Your task to perform on an android device: Open Chrome and go to the settings page Image 0: 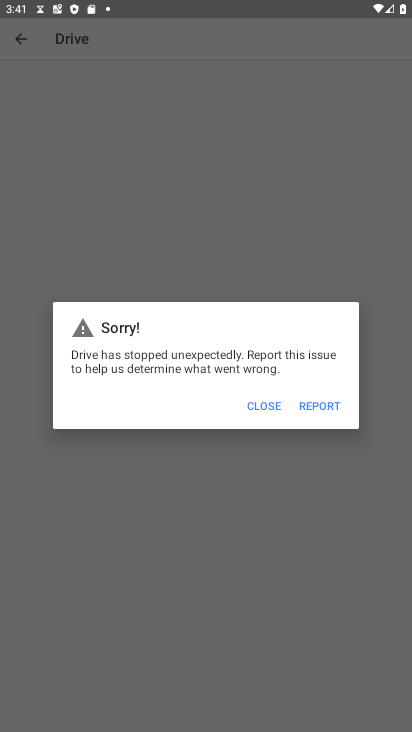
Step 0: drag from (233, 588) to (247, 313)
Your task to perform on an android device: Open Chrome and go to the settings page Image 1: 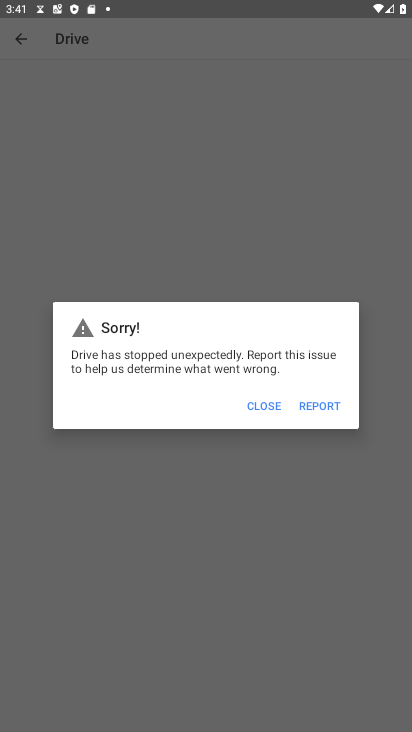
Step 1: press home button
Your task to perform on an android device: Open Chrome and go to the settings page Image 2: 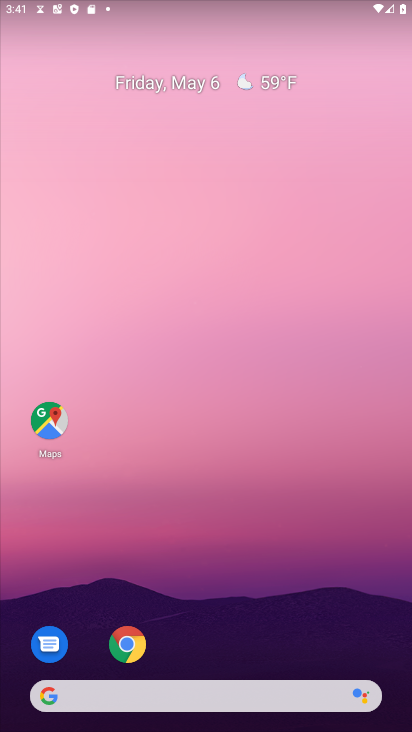
Step 2: click (128, 642)
Your task to perform on an android device: Open Chrome and go to the settings page Image 3: 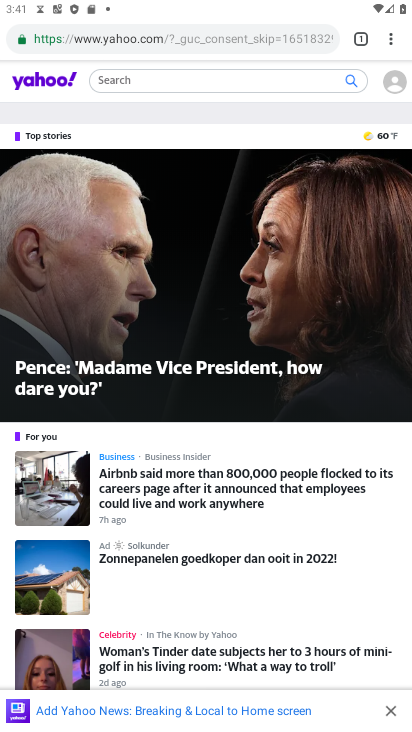
Step 3: click (392, 37)
Your task to perform on an android device: Open Chrome and go to the settings page Image 4: 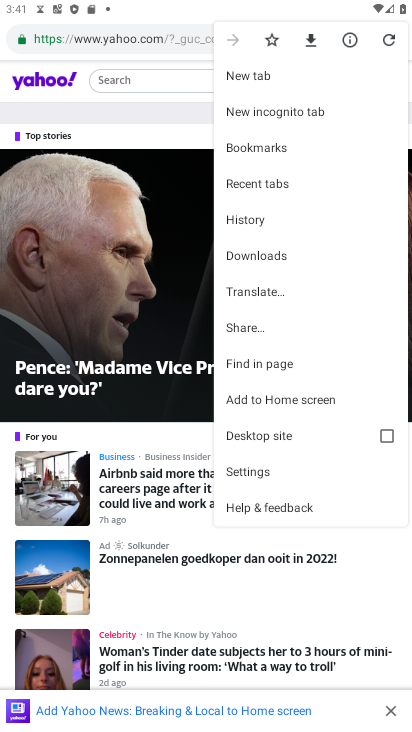
Step 4: click (257, 473)
Your task to perform on an android device: Open Chrome and go to the settings page Image 5: 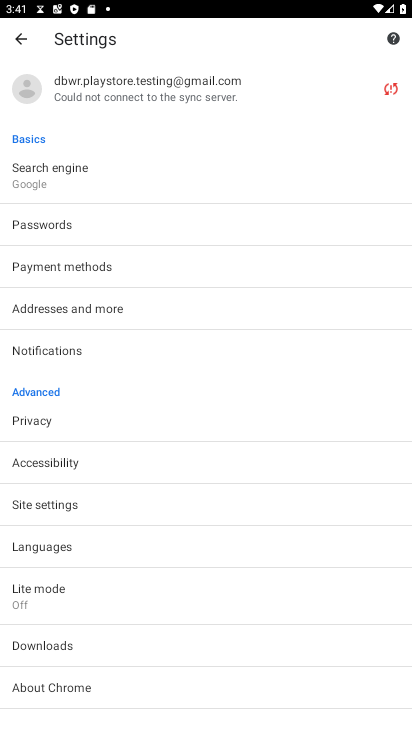
Step 5: task complete